Your task to perform on an android device: Check my gmail inbox Image 0: 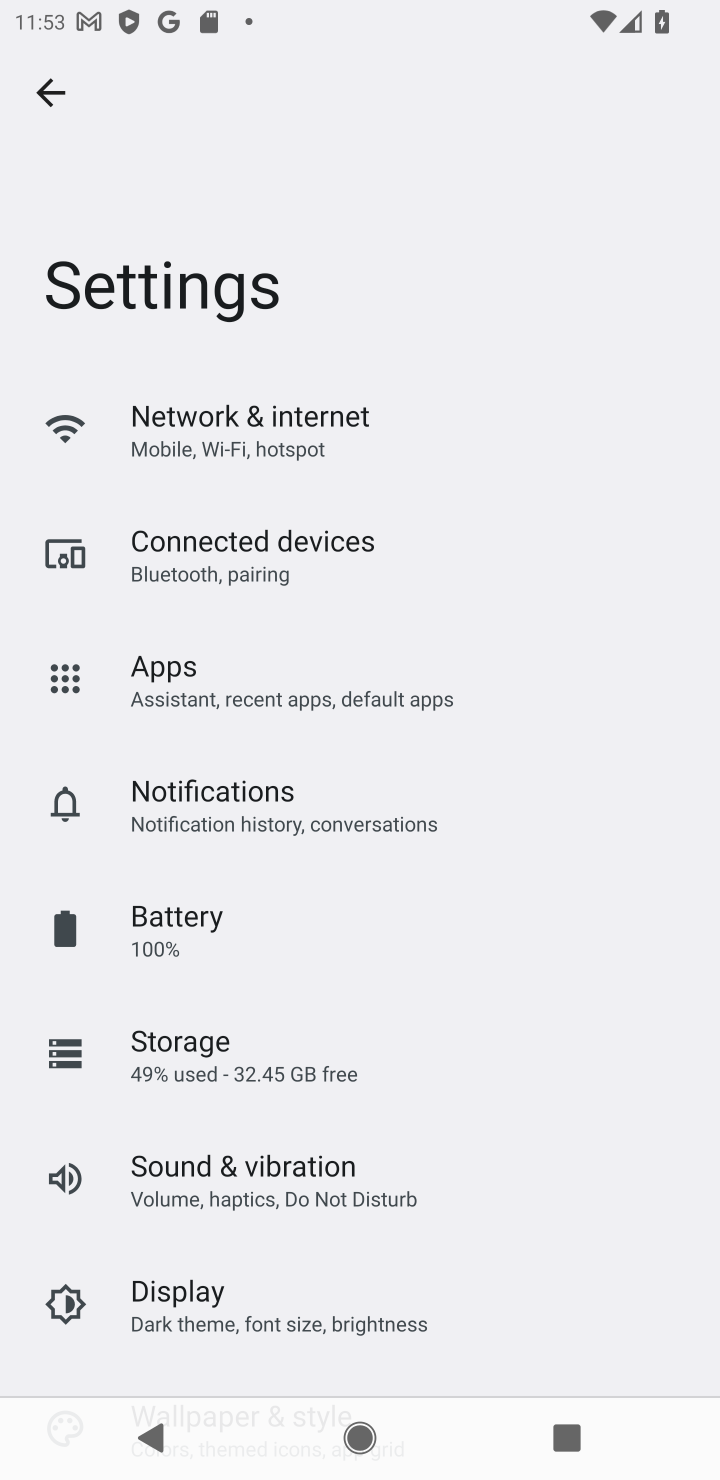
Step 0: press home button
Your task to perform on an android device: Check my gmail inbox Image 1: 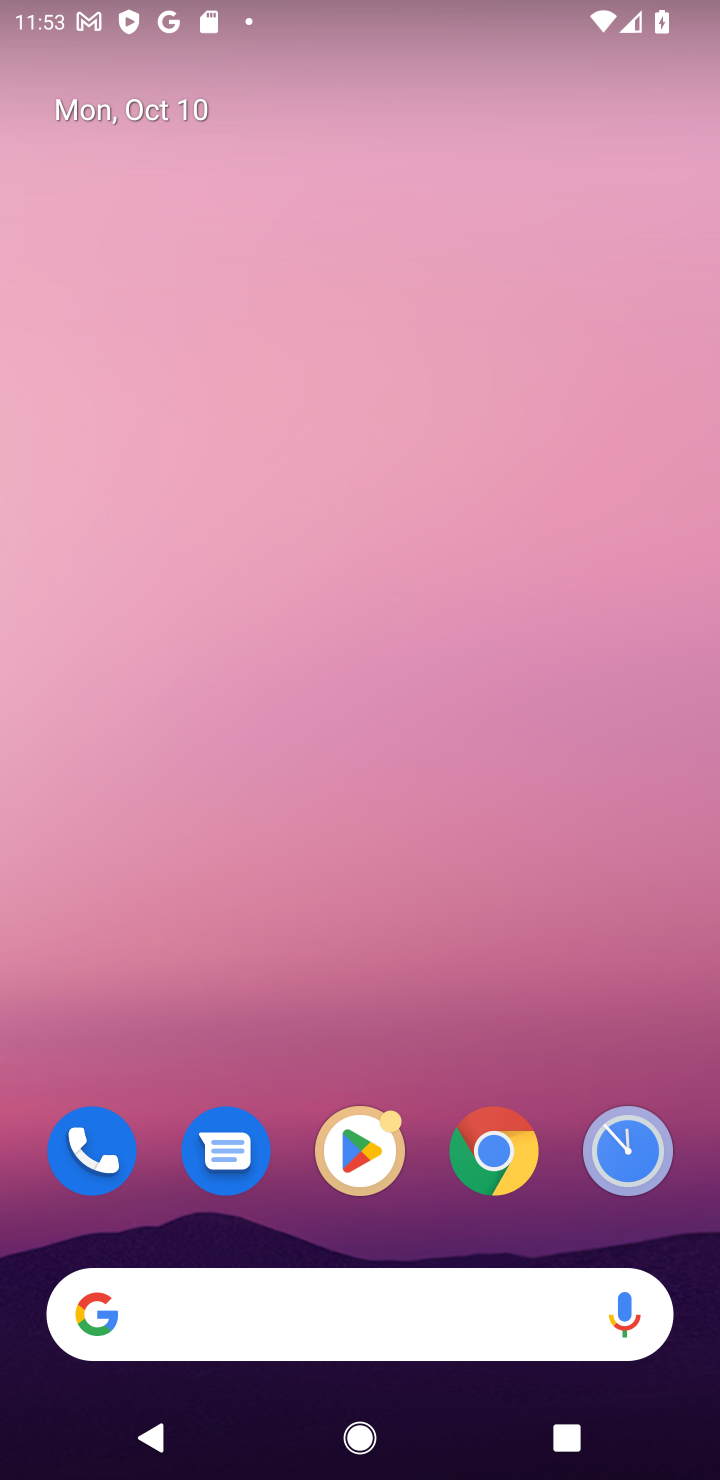
Step 1: drag from (419, 1062) to (329, 503)
Your task to perform on an android device: Check my gmail inbox Image 2: 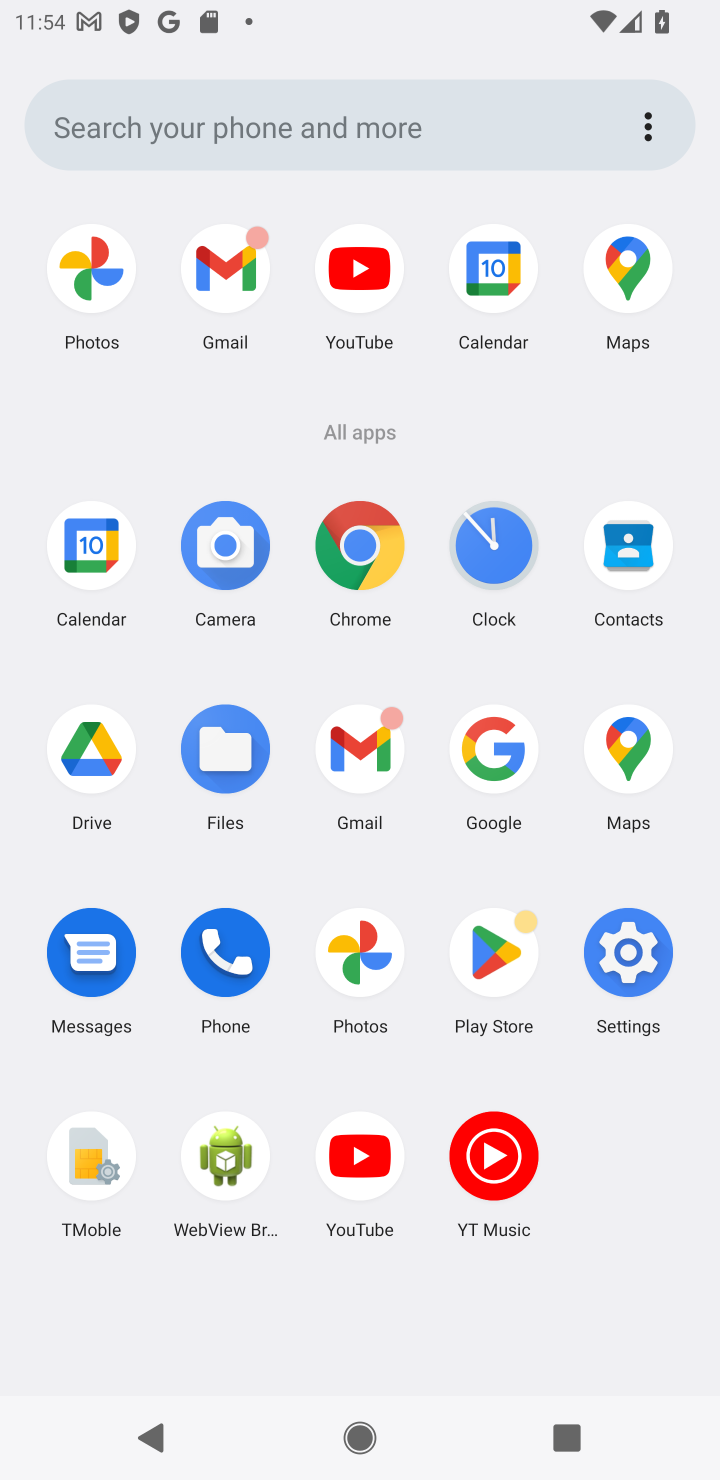
Step 2: click (200, 259)
Your task to perform on an android device: Check my gmail inbox Image 3: 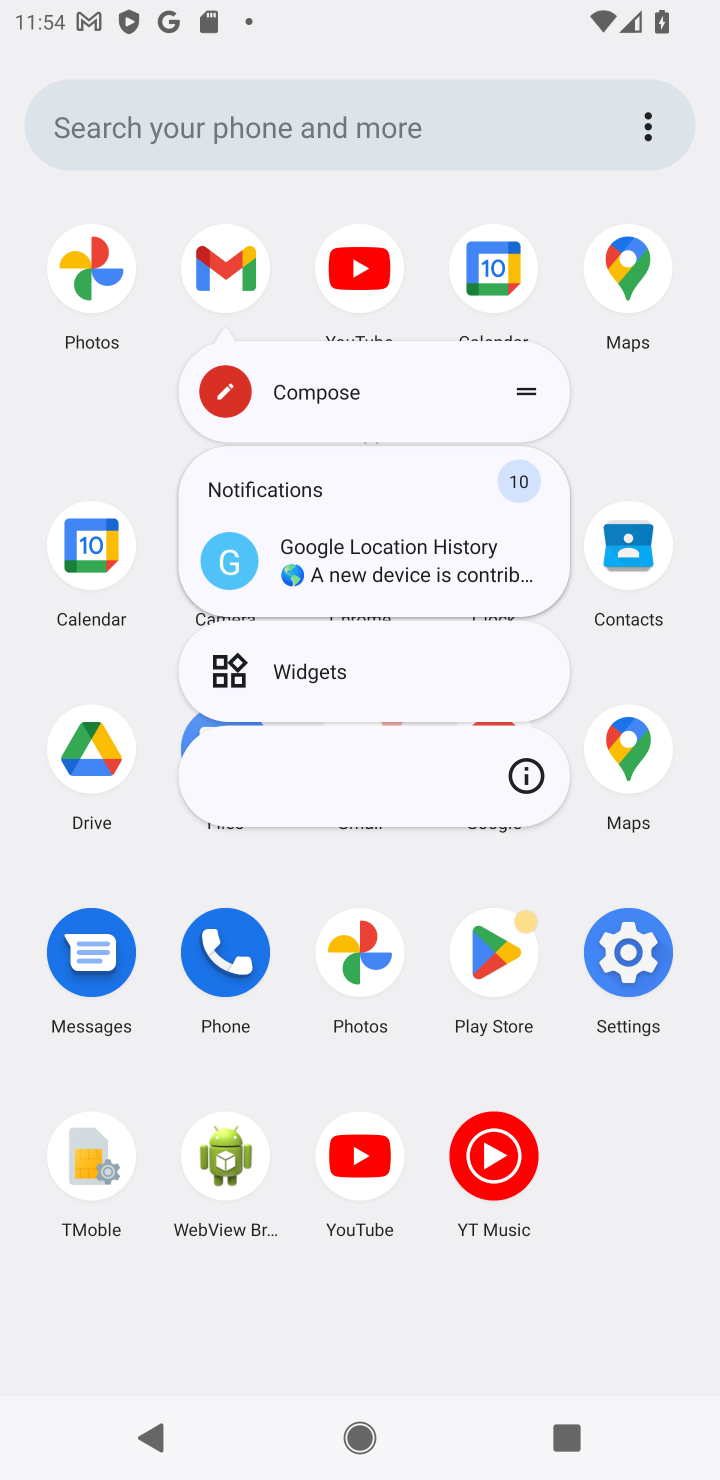
Step 3: click (207, 273)
Your task to perform on an android device: Check my gmail inbox Image 4: 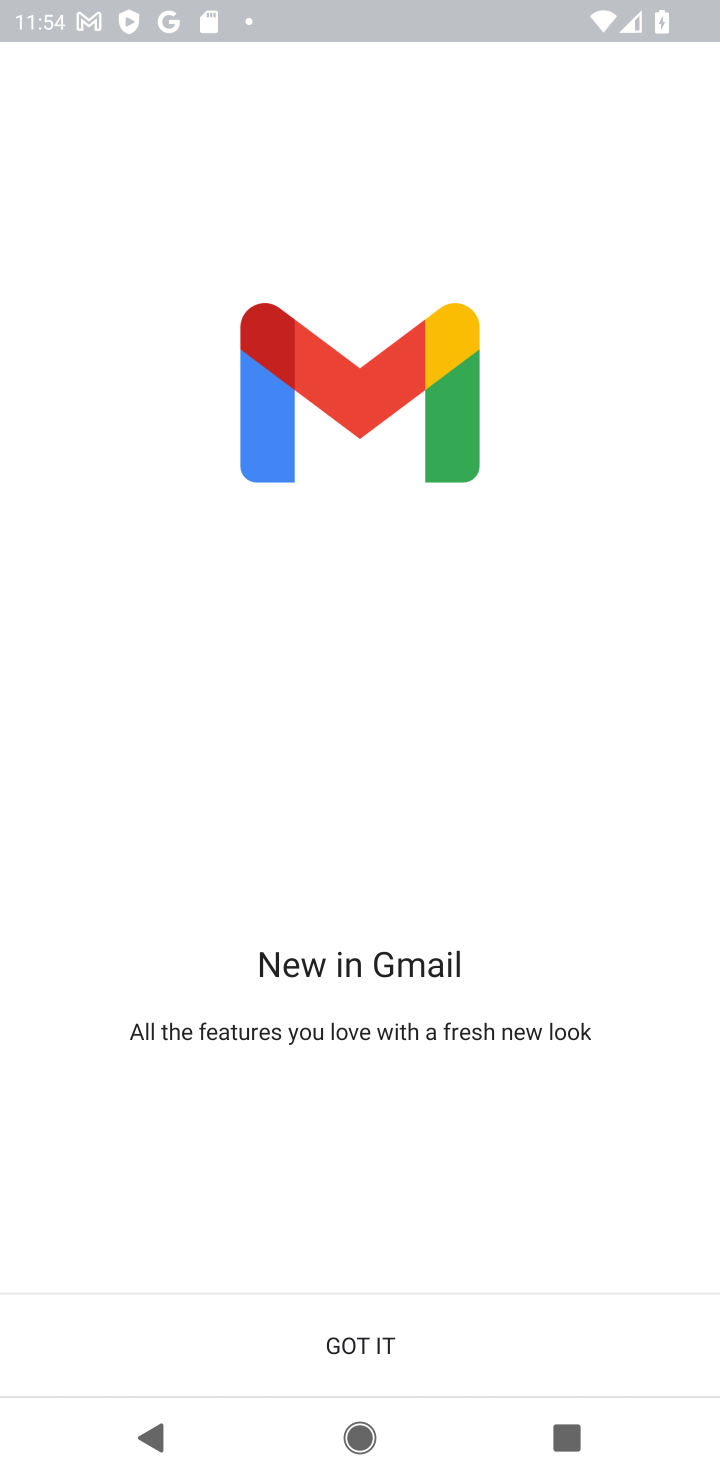
Step 4: click (347, 1350)
Your task to perform on an android device: Check my gmail inbox Image 5: 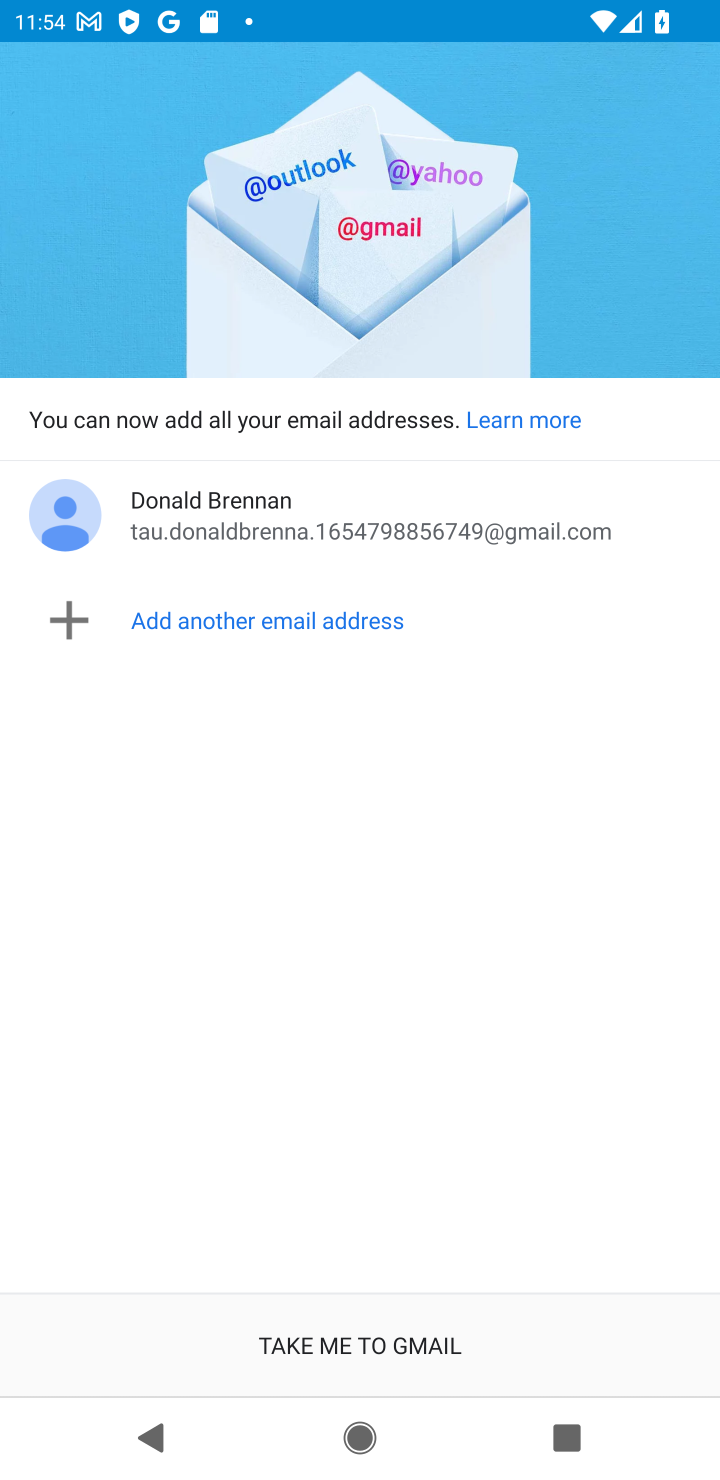
Step 5: click (338, 1333)
Your task to perform on an android device: Check my gmail inbox Image 6: 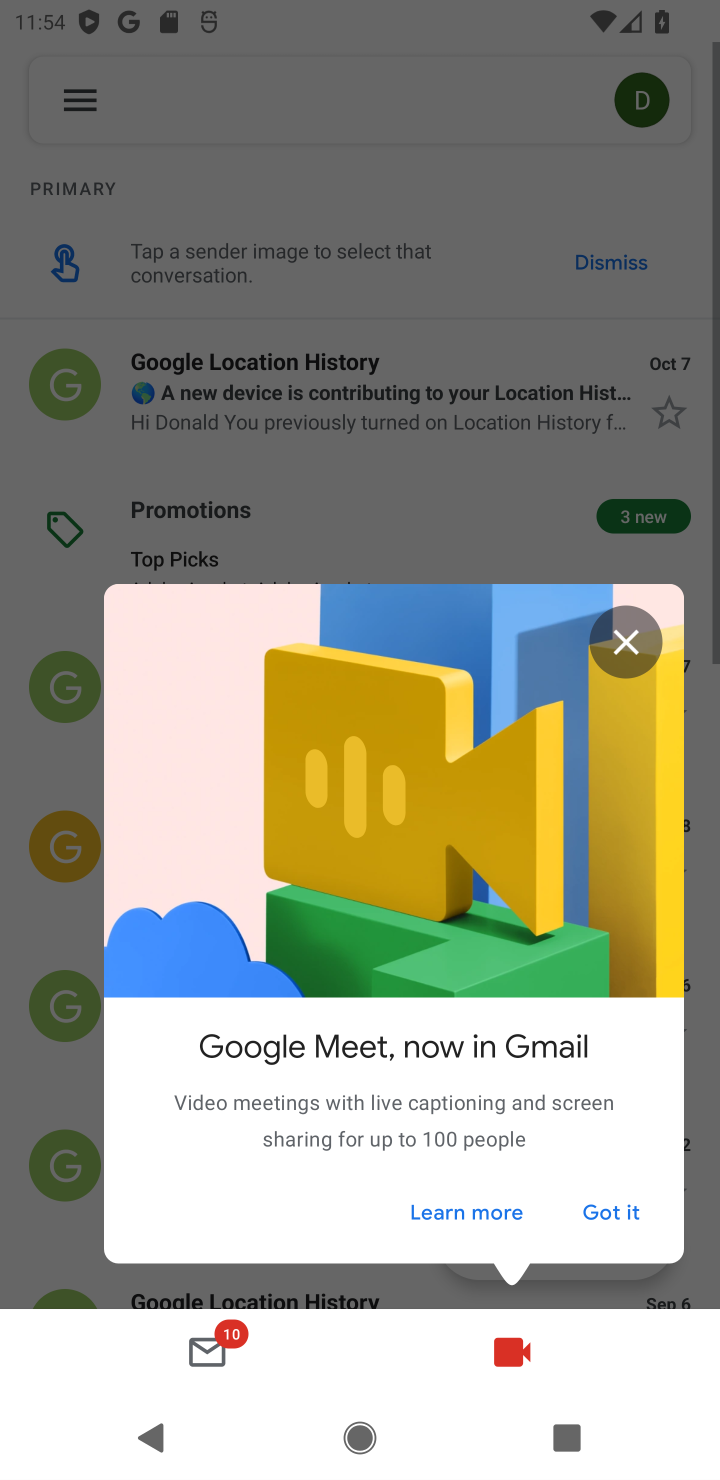
Step 6: click (618, 1209)
Your task to perform on an android device: Check my gmail inbox Image 7: 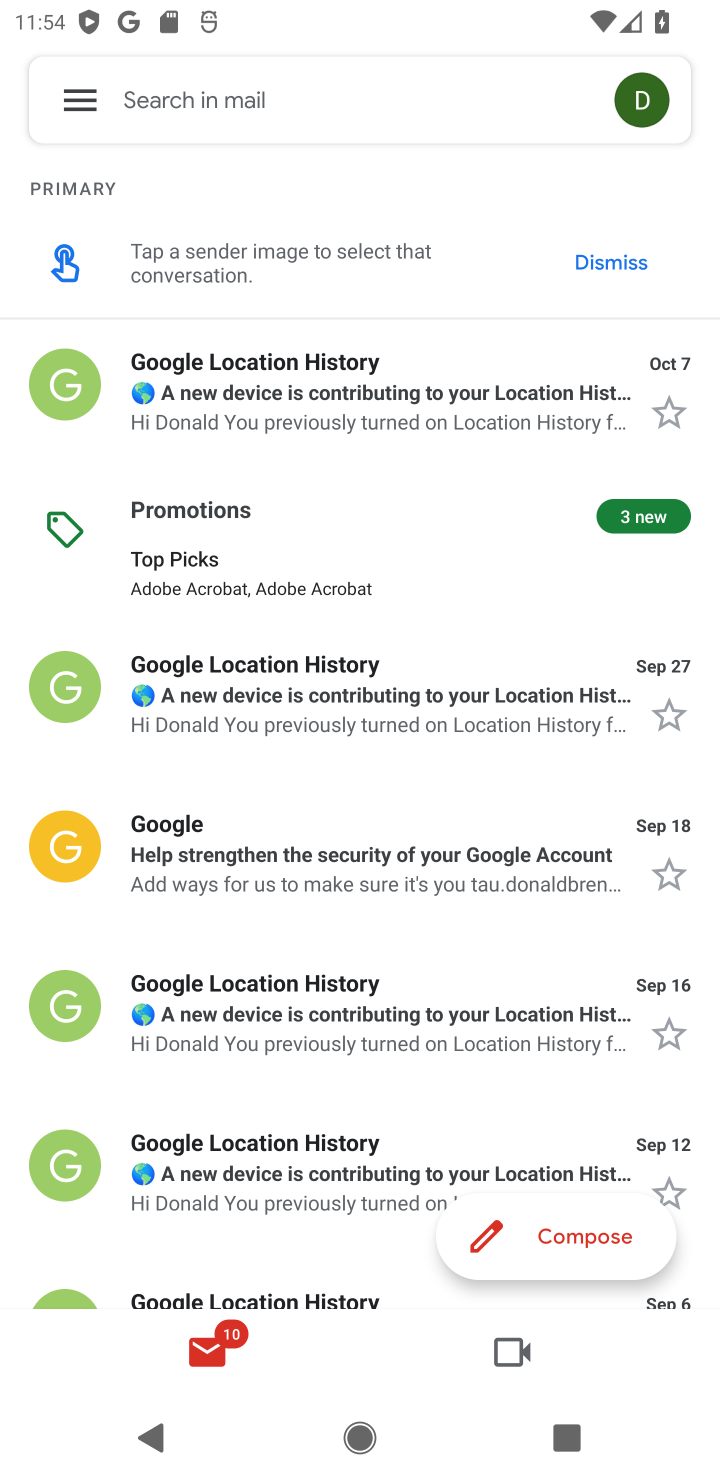
Step 7: click (66, 93)
Your task to perform on an android device: Check my gmail inbox Image 8: 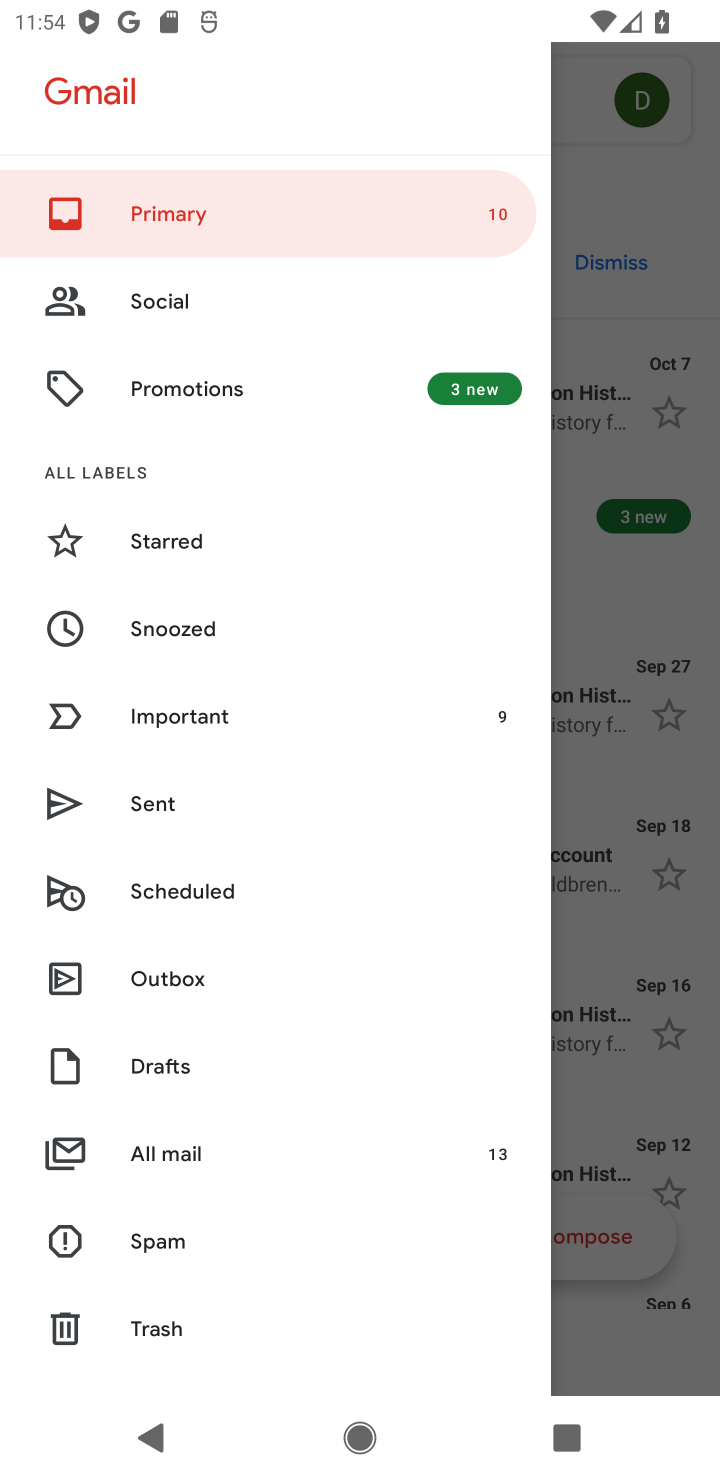
Step 8: click (149, 1150)
Your task to perform on an android device: Check my gmail inbox Image 9: 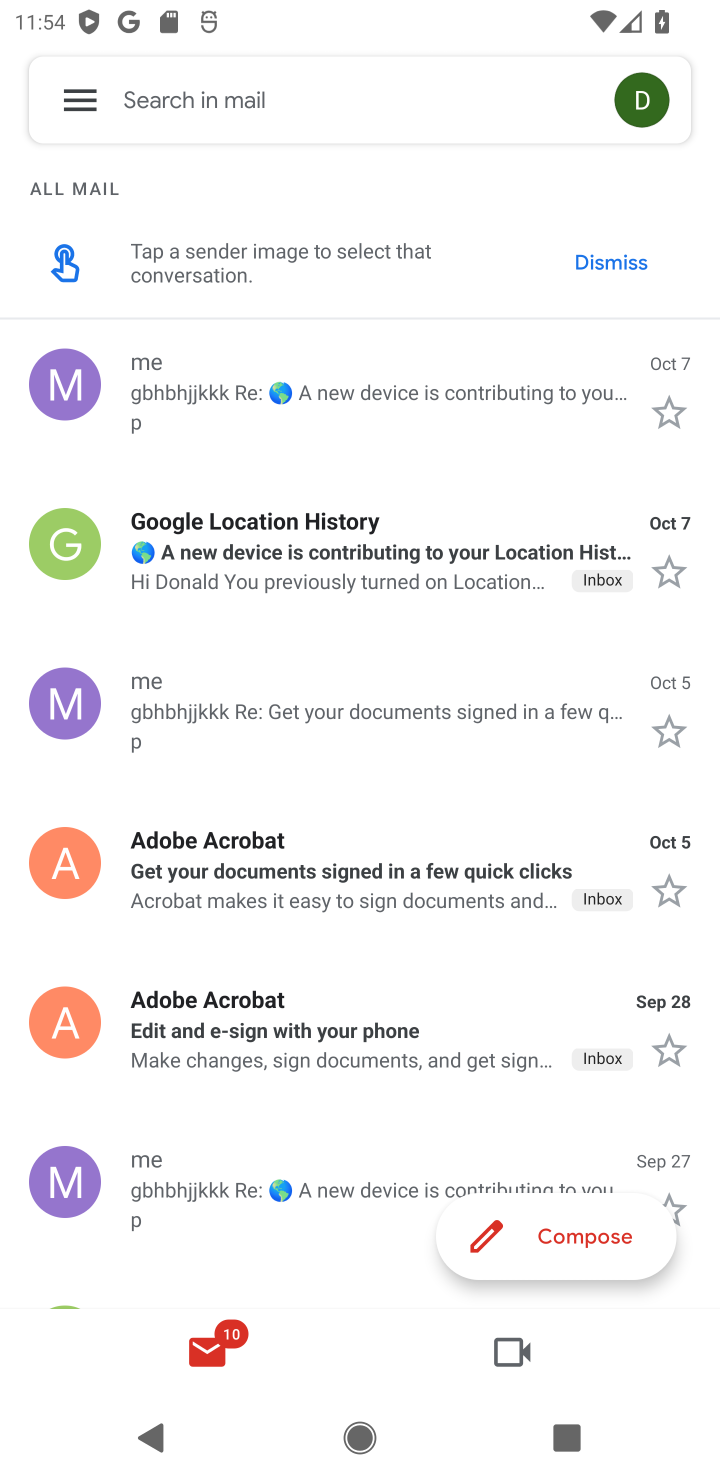
Step 9: task complete